Your task to perform on an android device: install app "Google Pay: Save, Pay, Manage" Image 0: 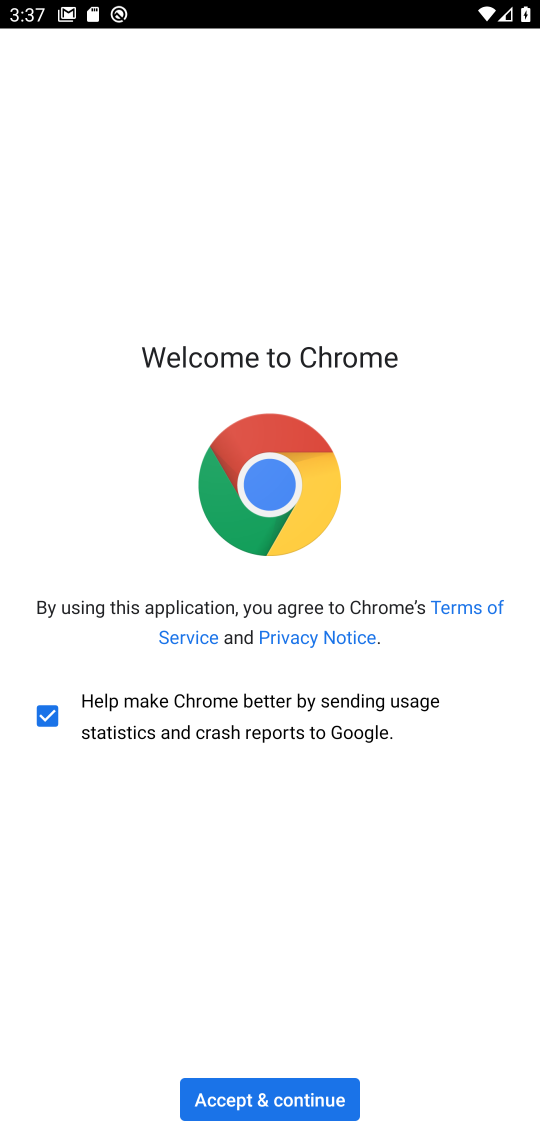
Step 0: press home button
Your task to perform on an android device: install app "Google Pay: Save, Pay, Manage" Image 1: 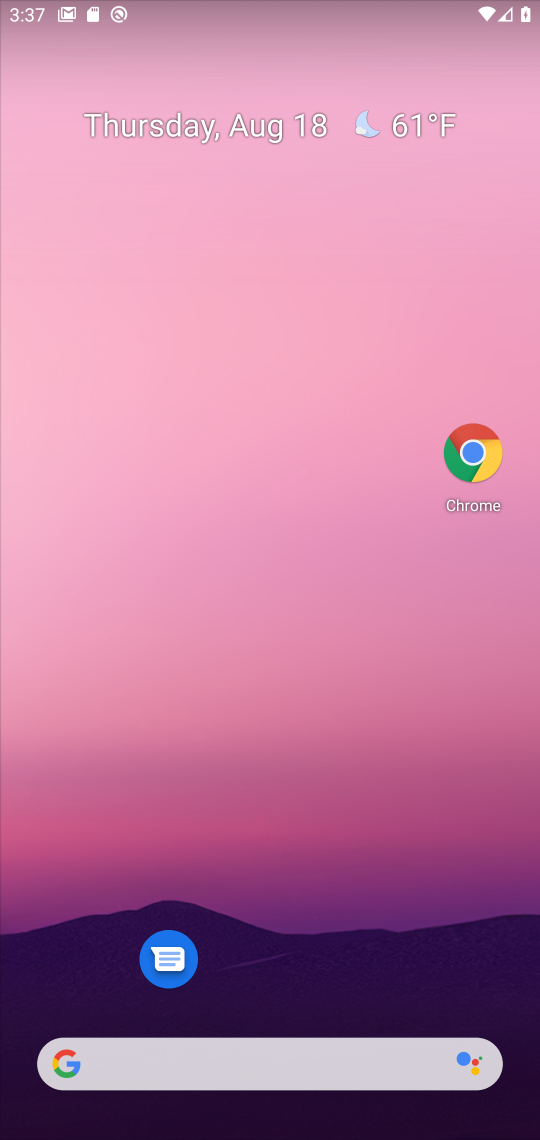
Step 1: drag from (177, 856) to (203, 347)
Your task to perform on an android device: install app "Google Pay: Save, Pay, Manage" Image 2: 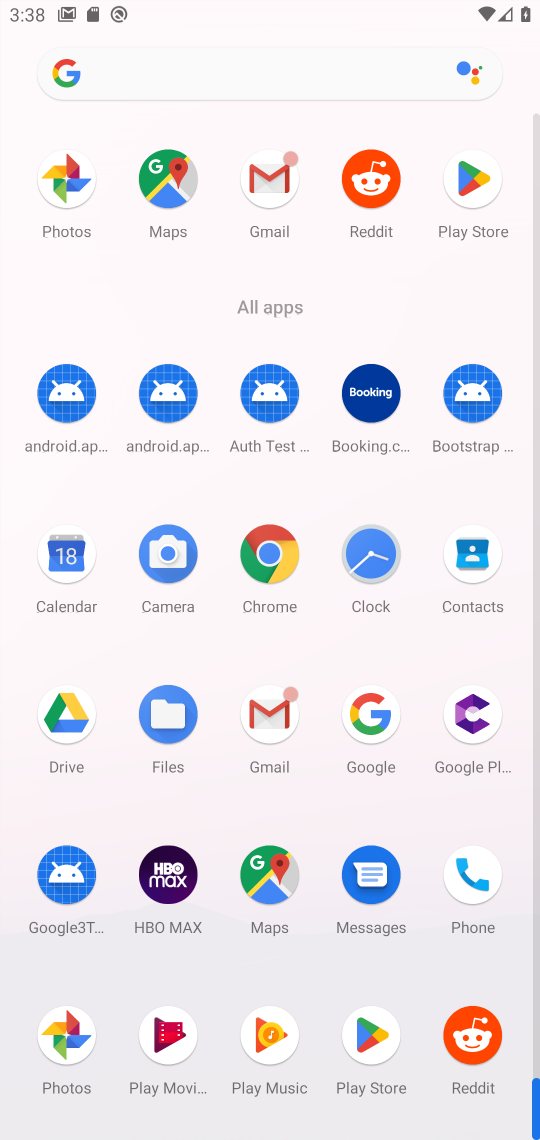
Step 2: click (466, 188)
Your task to perform on an android device: install app "Google Pay: Save, Pay, Manage" Image 3: 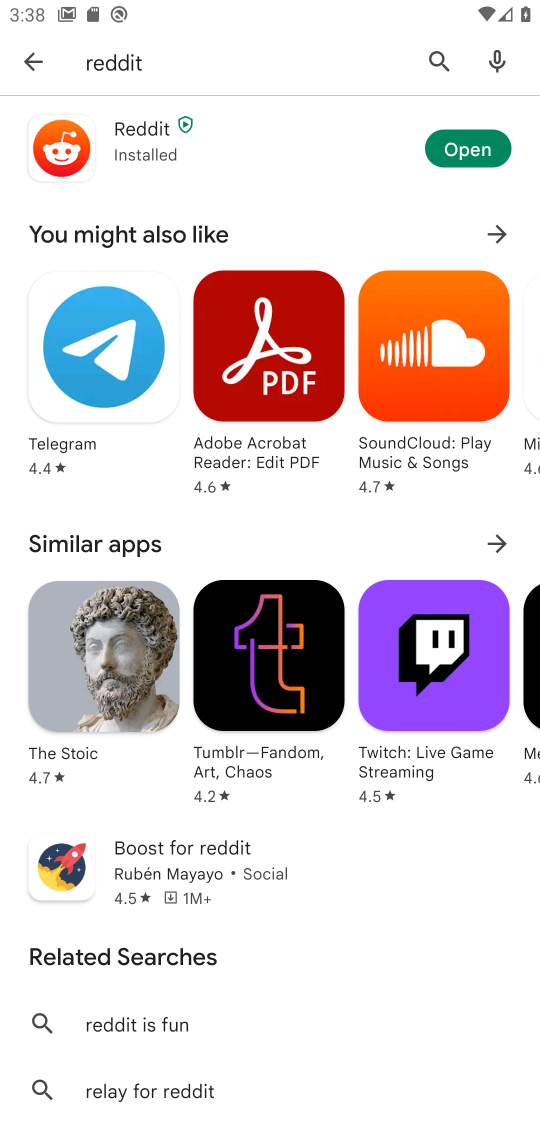
Step 3: click (27, 62)
Your task to perform on an android device: install app "Google Pay: Save, Pay, Manage" Image 4: 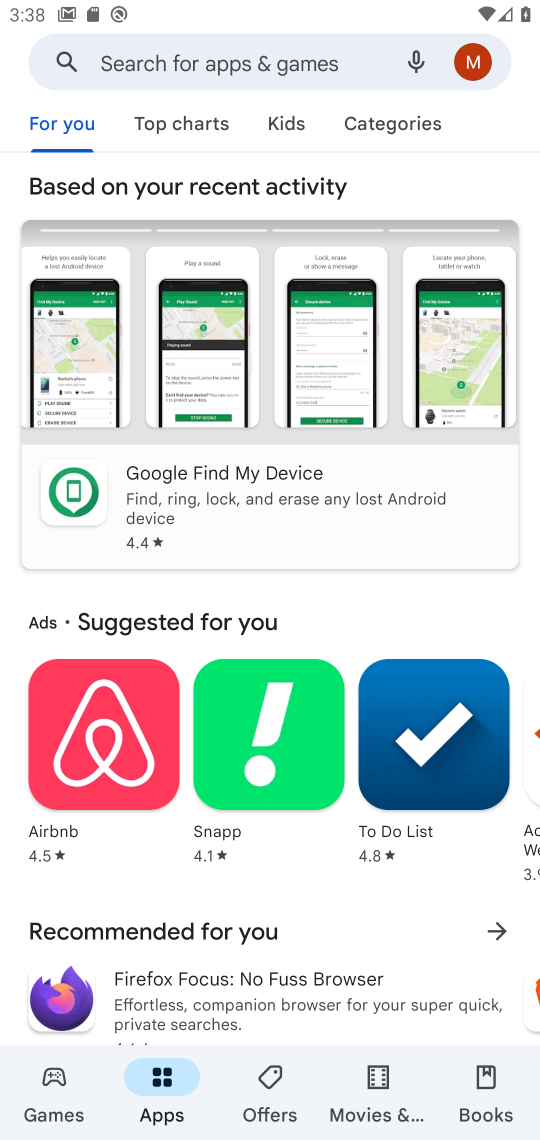
Step 4: click (111, 62)
Your task to perform on an android device: install app "Google Pay: Save, Pay, Manage" Image 5: 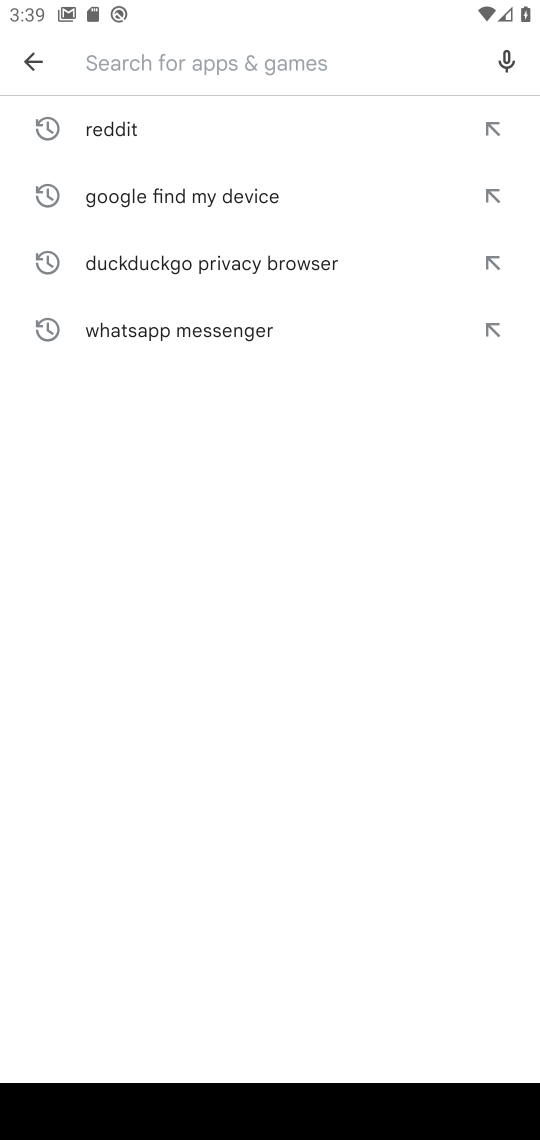
Step 5: type "Google Pay: Save, Pay, Manage"
Your task to perform on an android device: install app "Google Pay: Save, Pay, Manage" Image 6: 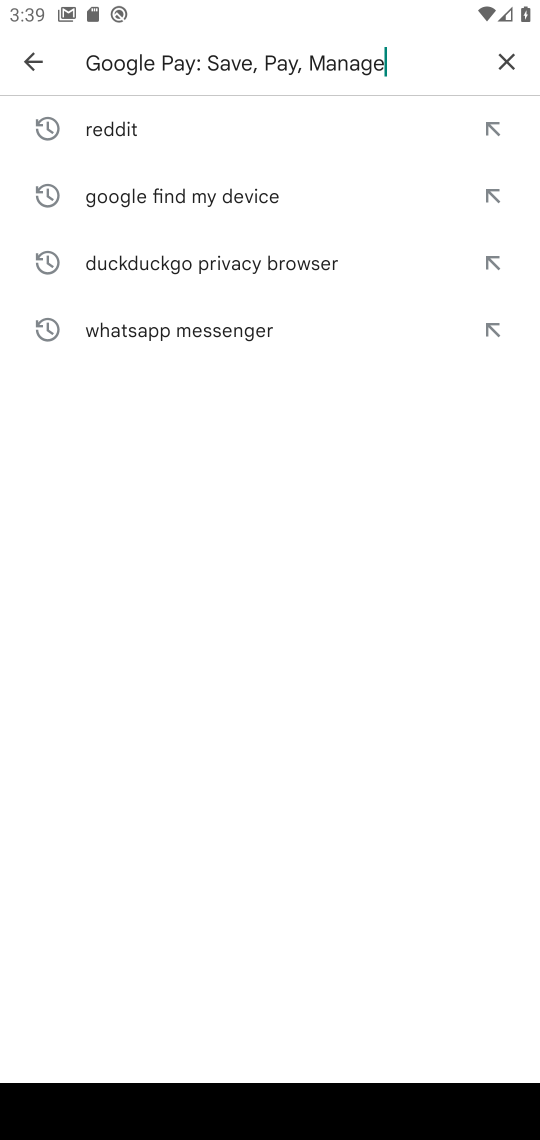
Step 6: type ""
Your task to perform on an android device: install app "Google Pay: Save, Pay, Manage" Image 7: 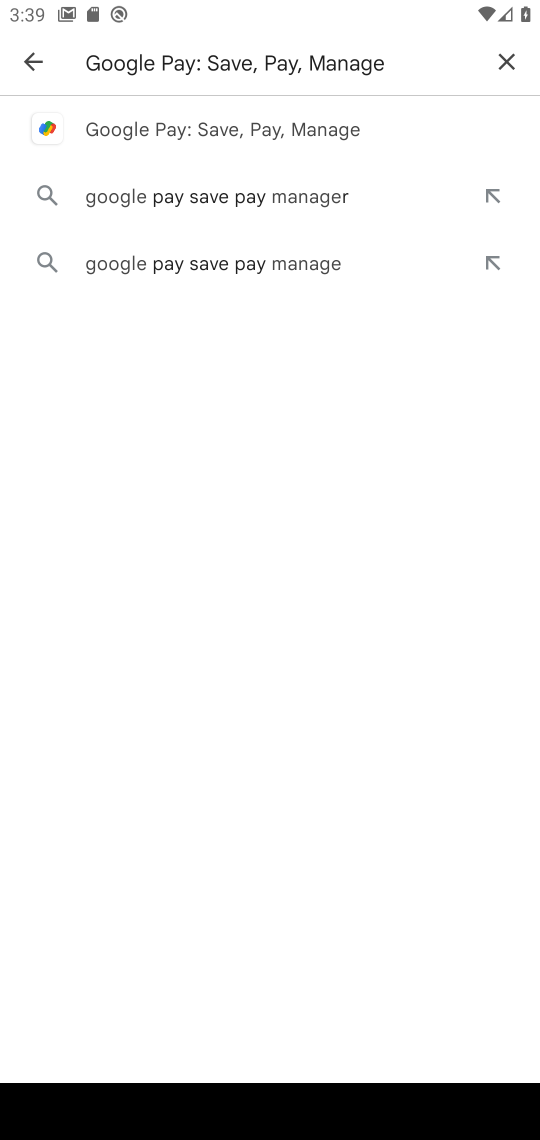
Step 7: click (82, 121)
Your task to perform on an android device: install app "Google Pay: Save, Pay, Manage" Image 8: 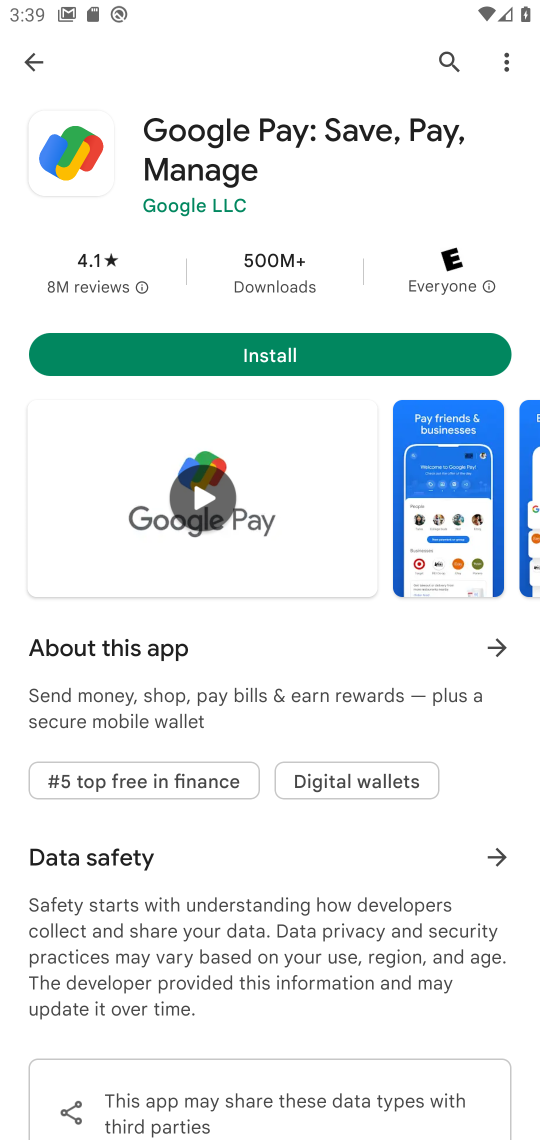
Step 8: click (136, 356)
Your task to perform on an android device: install app "Google Pay: Save, Pay, Manage" Image 9: 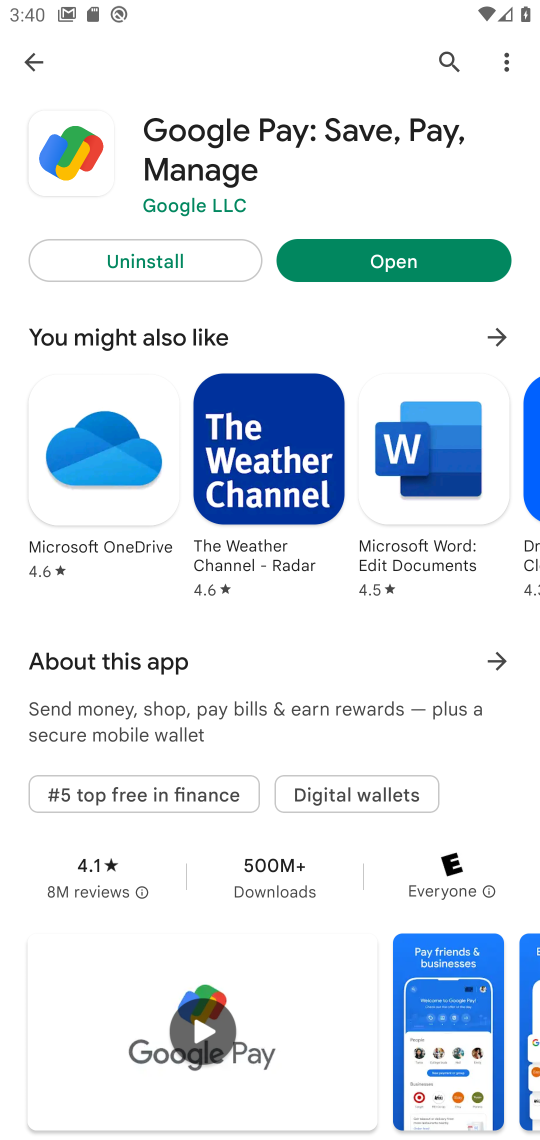
Step 9: task complete